Your task to perform on an android device: What's on my calendar today? Image 0: 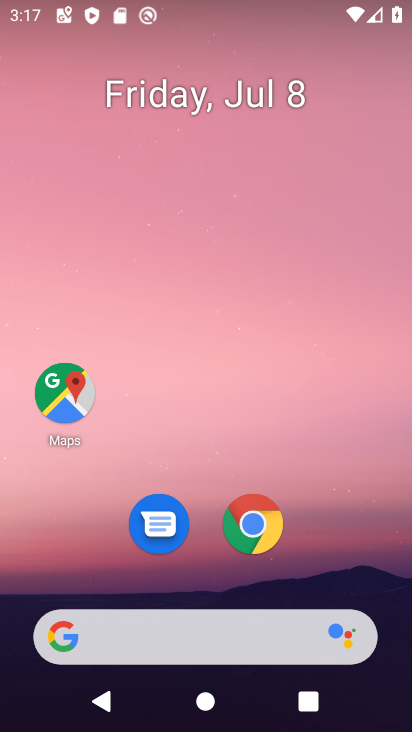
Step 0: drag from (340, 522) to (290, 42)
Your task to perform on an android device: What's on my calendar today? Image 1: 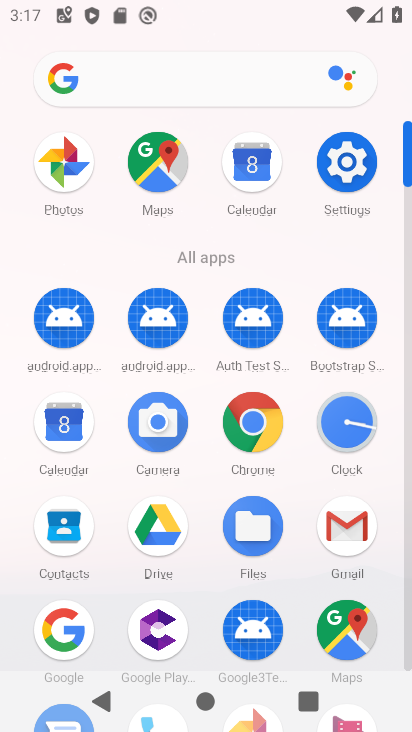
Step 1: click (69, 428)
Your task to perform on an android device: What's on my calendar today? Image 2: 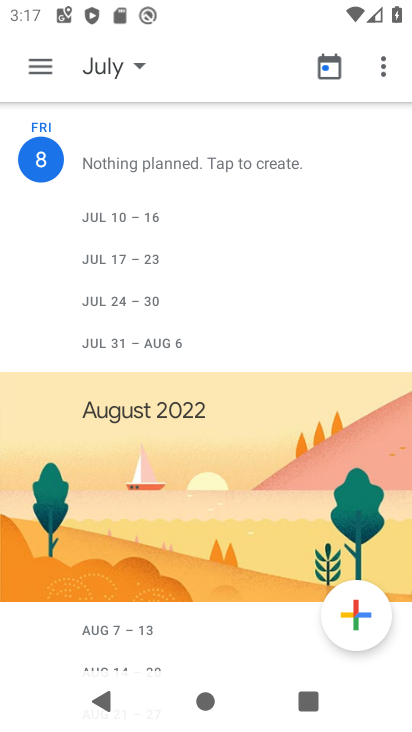
Step 2: task complete